Your task to perform on an android device: open a bookmark in the chrome app Image 0: 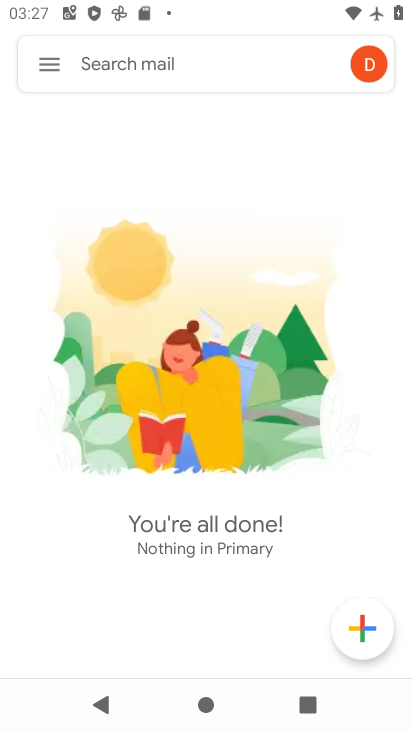
Step 0: press home button
Your task to perform on an android device: open a bookmark in the chrome app Image 1: 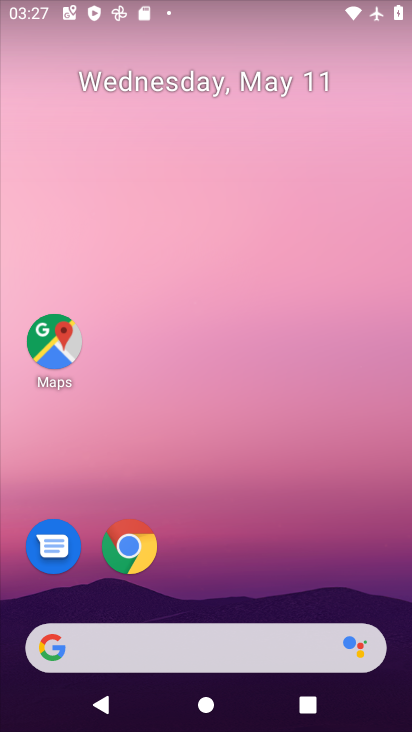
Step 1: drag from (192, 474) to (178, 32)
Your task to perform on an android device: open a bookmark in the chrome app Image 2: 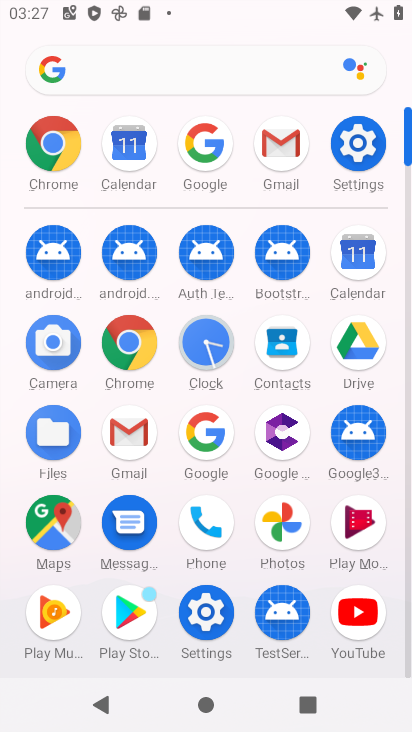
Step 2: click (124, 339)
Your task to perform on an android device: open a bookmark in the chrome app Image 3: 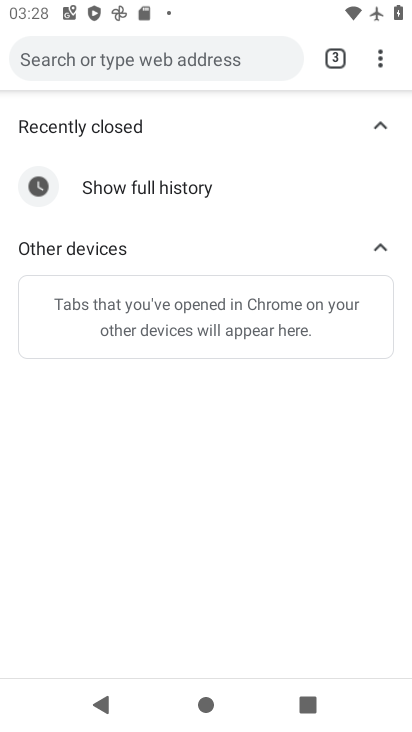
Step 3: click (249, 559)
Your task to perform on an android device: open a bookmark in the chrome app Image 4: 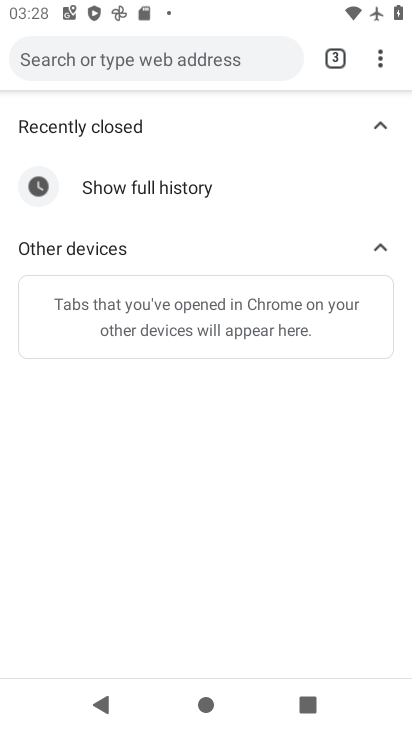
Step 4: click (372, 67)
Your task to perform on an android device: open a bookmark in the chrome app Image 5: 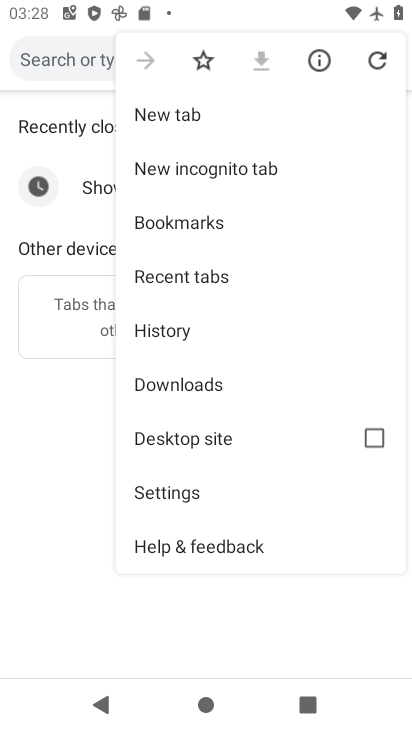
Step 5: click (190, 227)
Your task to perform on an android device: open a bookmark in the chrome app Image 6: 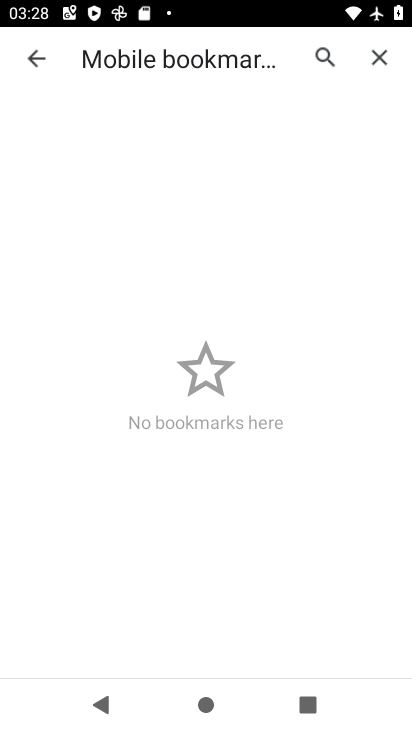
Step 6: task complete